Your task to perform on an android device: turn off data saver in the chrome app Image 0: 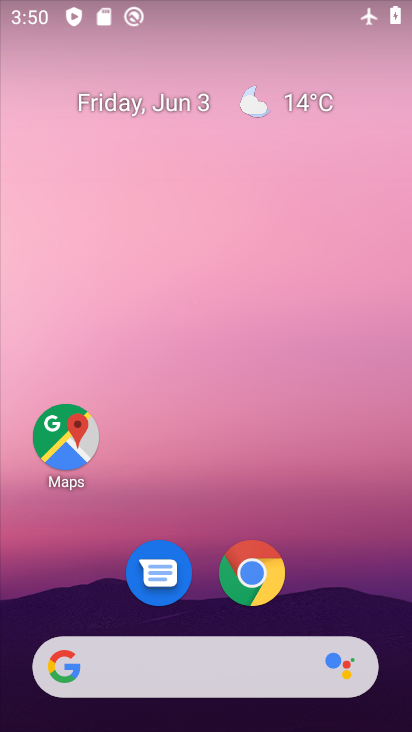
Step 0: drag from (206, 668) to (271, 259)
Your task to perform on an android device: turn off data saver in the chrome app Image 1: 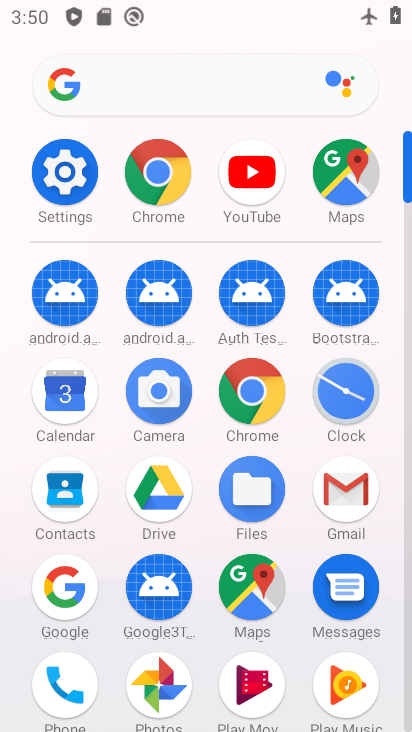
Step 1: click (255, 405)
Your task to perform on an android device: turn off data saver in the chrome app Image 2: 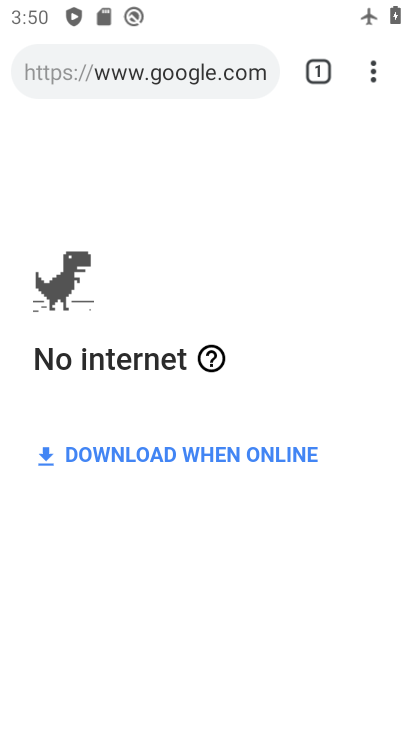
Step 2: click (376, 61)
Your task to perform on an android device: turn off data saver in the chrome app Image 3: 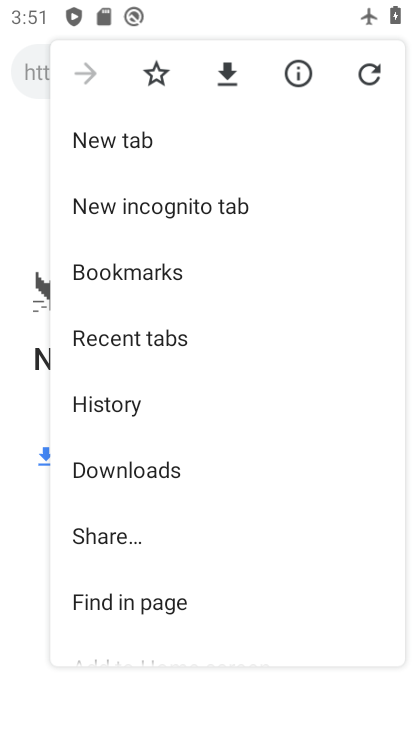
Step 3: drag from (243, 548) to (302, 385)
Your task to perform on an android device: turn off data saver in the chrome app Image 4: 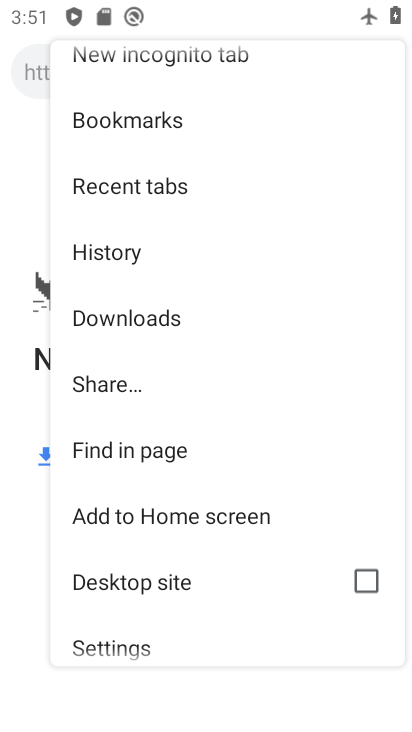
Step 4: drag from (253, 472) to (250, 242)
Your task to perform on an android device: turn off data saver in the chrome app Image 5: 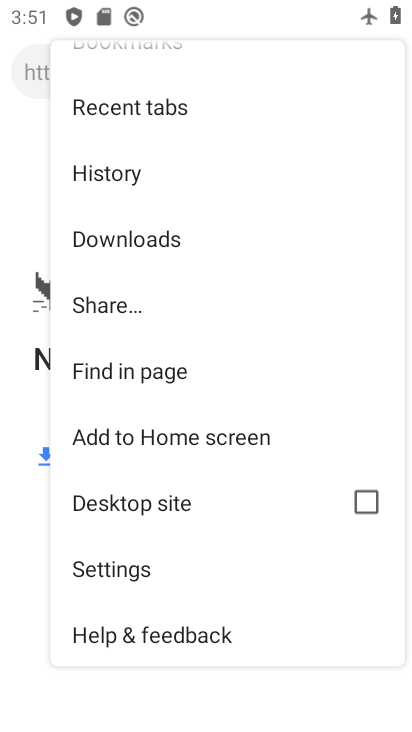
Step 5: click (115, 577)
Your task to perform on an android device: turn off data saver in the chrome app Image 6: 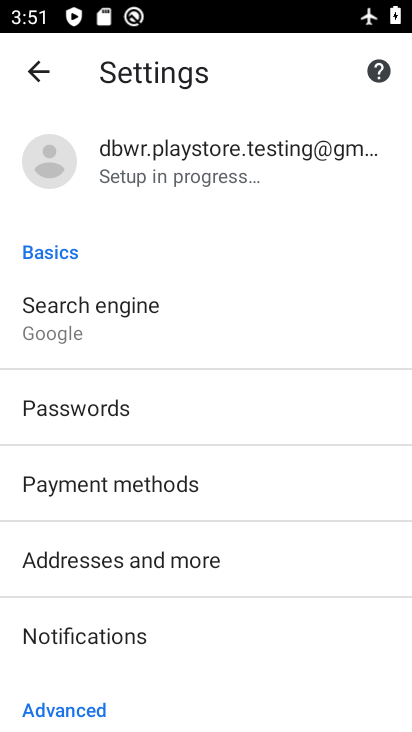
Step 6: drag from (213, 520) to (182, 24)
Your task to perform on an android device: turn off data saver in the chrome app Image 7: 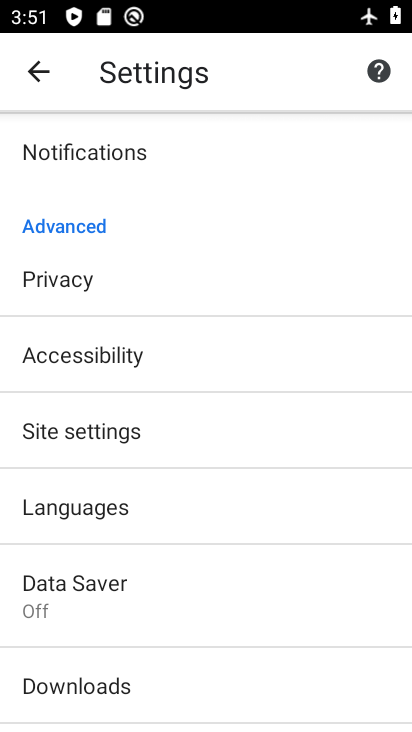
Step 7: click (141, 604)
Your task to perform on an android device: turn off data saver in the chrome app Image 8: 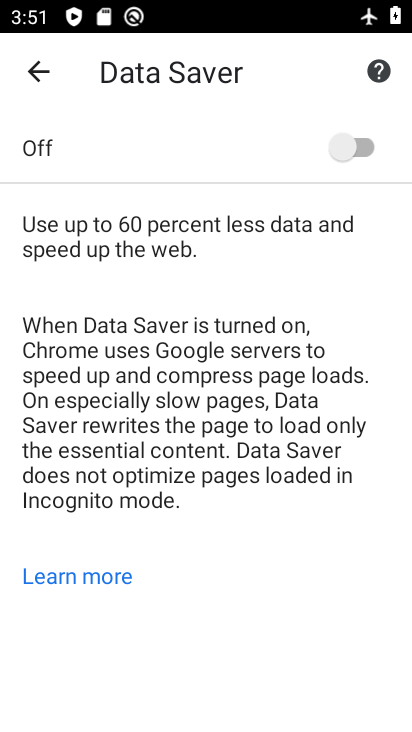
Step 8: task complete